Your task to perform on an android device: show emergency info Image 0: 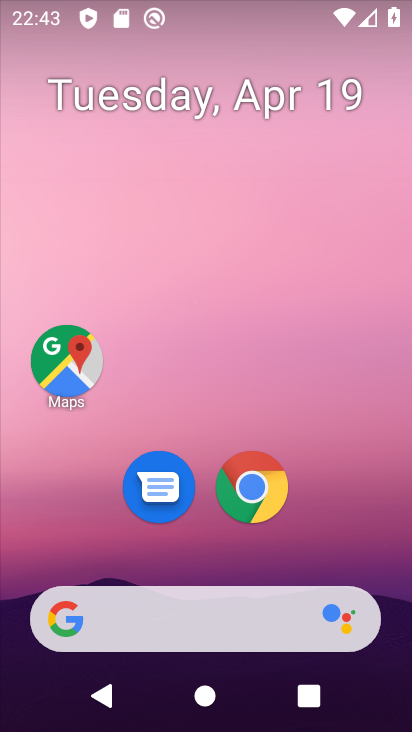
Step 0: drag from (202, 536) to (356, 94)
Your task to perform on an android device: show emergency info Image 1: 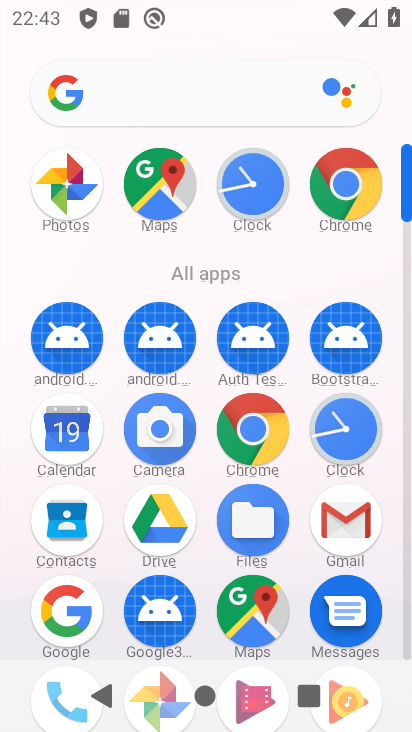
Step 1: drag from (113, 599) to (257, 192)
Your task to perform on an android device: show emergency info Image 2: 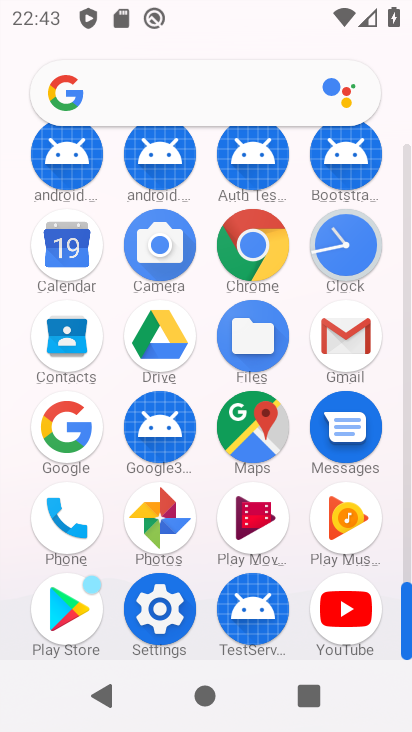
Step 2: click (154, 591)
Your task to perform on an android device: show emergency info Image 3: 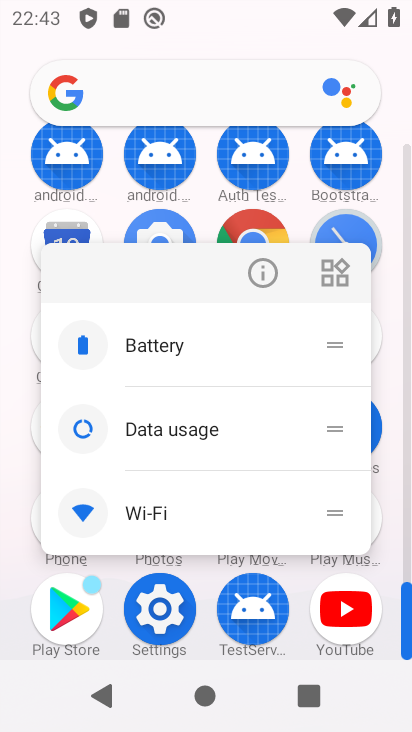
Step 3: click (191, 592)
Your task to perform on an android device: show emergency info Image 4: 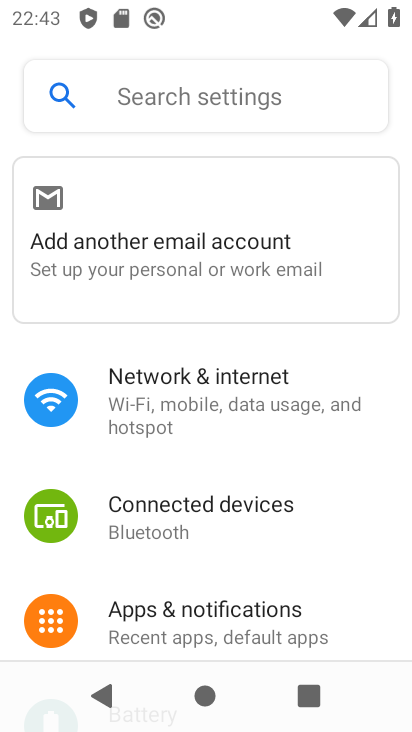
Step 4: drag from (179, 566) to (348, 125)
Your task to perform on an android device: show emergency info Image 5: 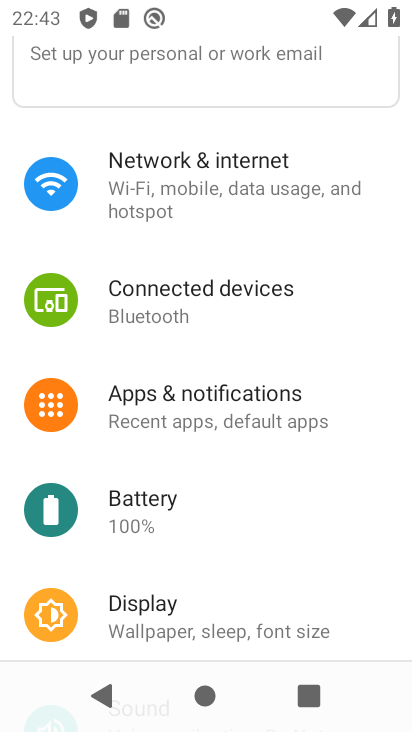
Step 5: drag from (209, 623) to (353, 103)
Your task to perform on an android device: show emergency info Image 6: 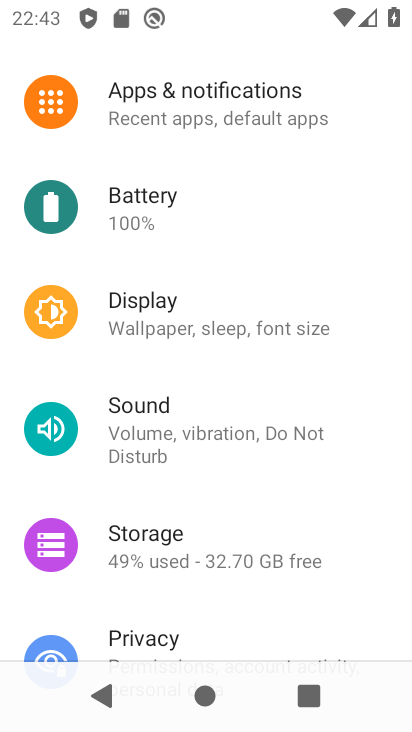
Step 6: drag from (129, 585) to (271, 164)
Your task to perform on an android device: show emergency info Image 7: 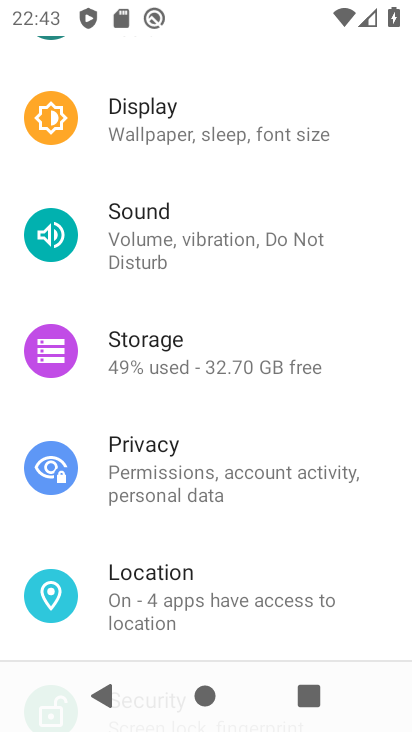
Step 7: drag from (195, 527) to (333, 117)
Your task to perform on an android device: show emergency info Image 8: 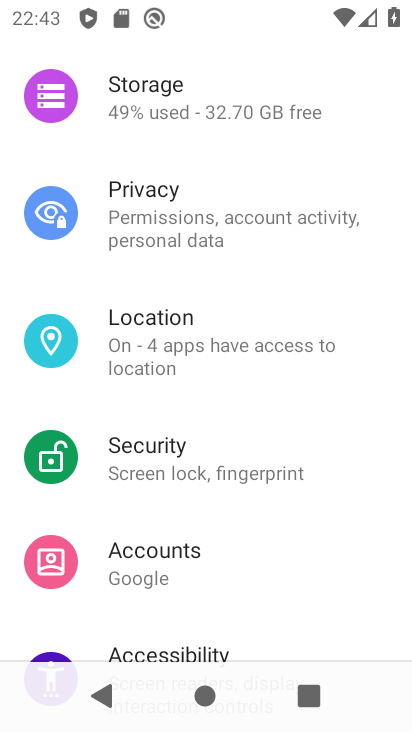
Step 8: drag from (181, 541) to (386, 98)
Your task to perform on an android device: show emergency info Image 9: 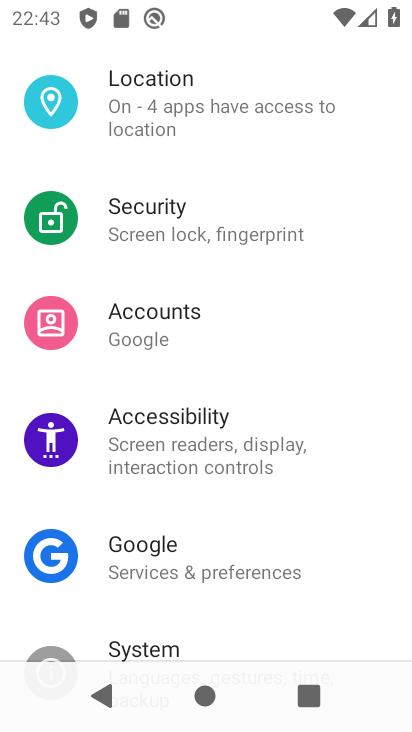
Step 9: drag from (288, 584) to (406, 128)
Your task to perform on an android device: show emergency info Image 10: 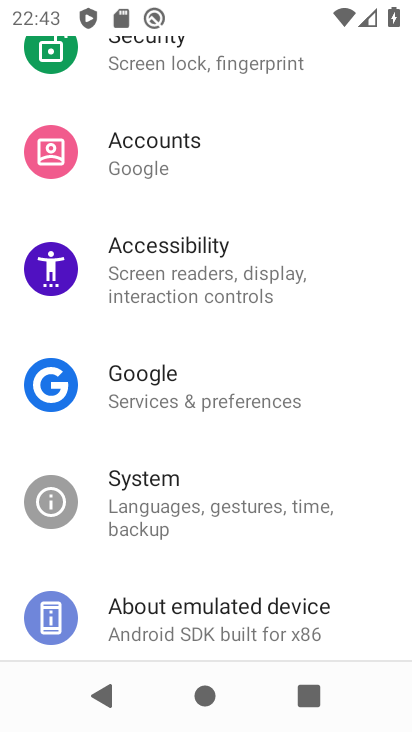
Step 10: click (240, 618)
Your task to perform on an android device: show emergency info Image 11: 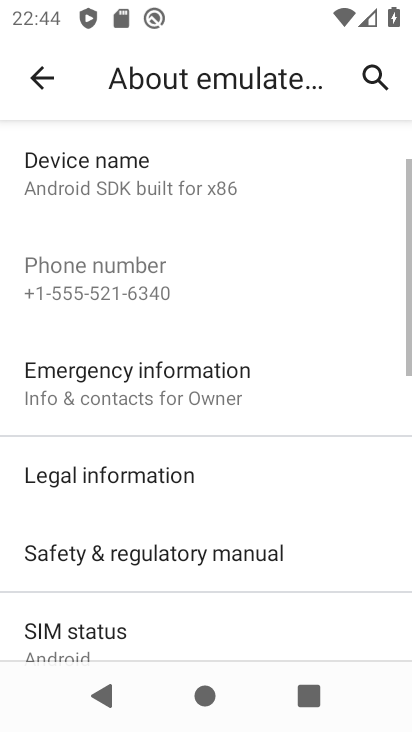
Step 11: click (232, 409)
Your task to perform on an android device: show emergency info Image 12: 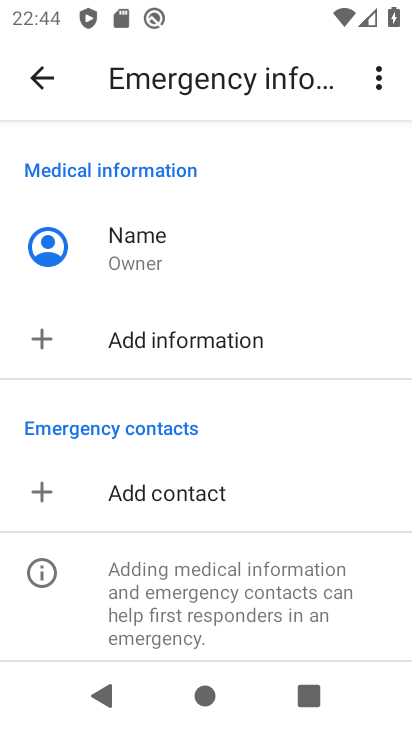
Step 12: task complete